Your task to perform on an android device: Go to Yahoo.com Image 0: 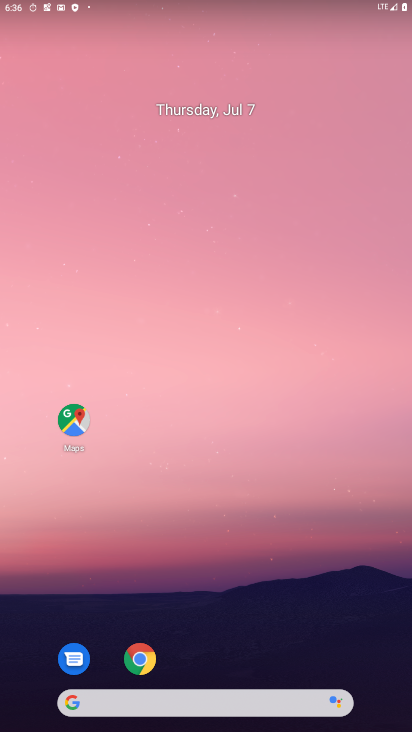
Step 0: drag from (374, 640) to (198, 11)
Your task to perform on an android device: Go to Yahoo.com Image 1: 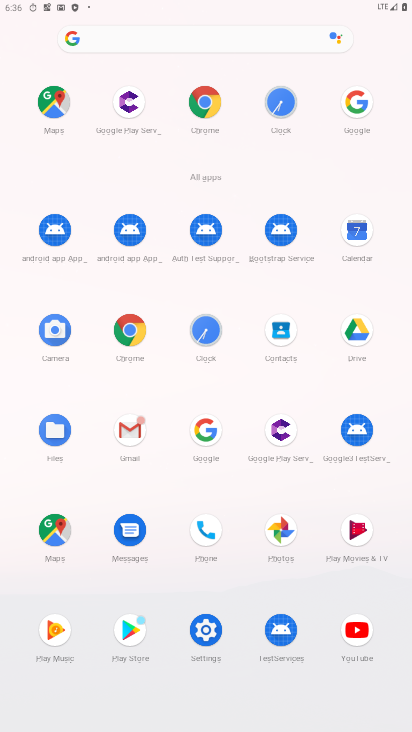
Step 1: click (347, 105)
Your task to perform on an android device: Go to Yahoo.com Image 2: 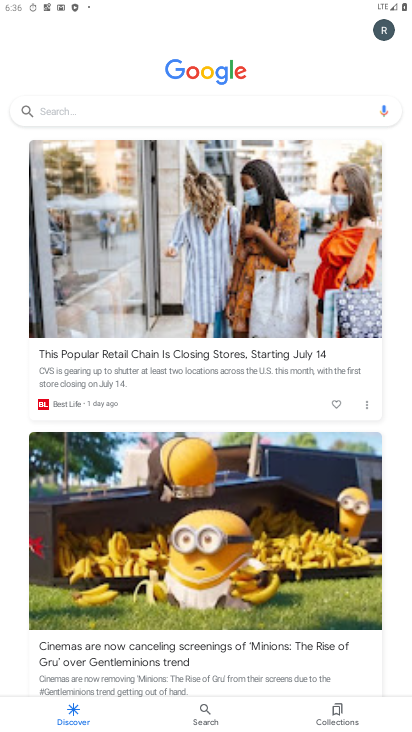
Step 2: click (62, 108)
Your task to perform on an android device: Go to Yahoo.com Image 3: 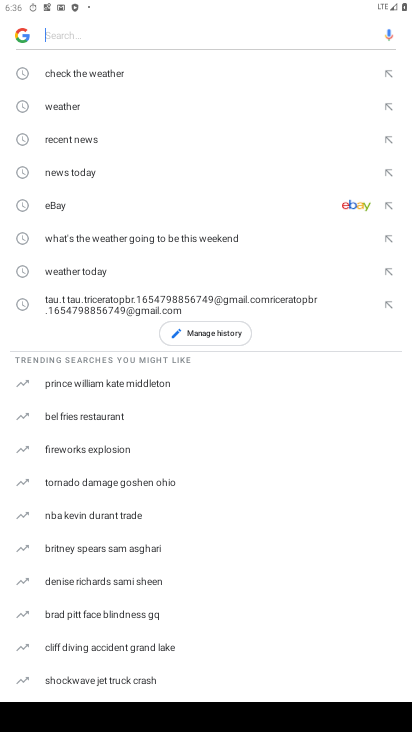
Step 3: type "Yahoo.com"
Your task to perform on an android device: Go to Yahoo.com Image 4: 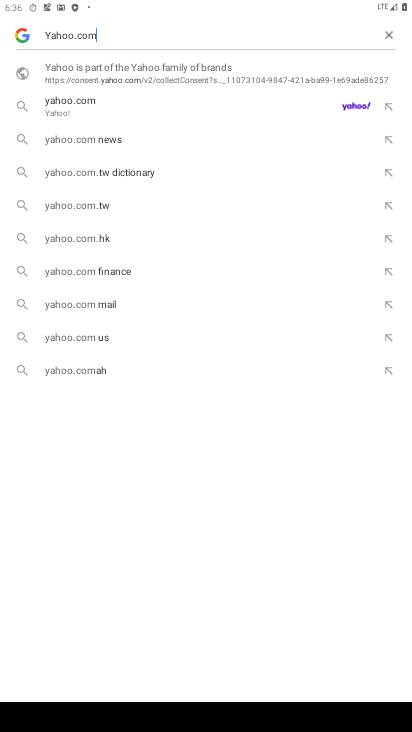
Step 4: click (126, 97)
Your task to perform on an android device: Go to Yahoo.com Image 5: 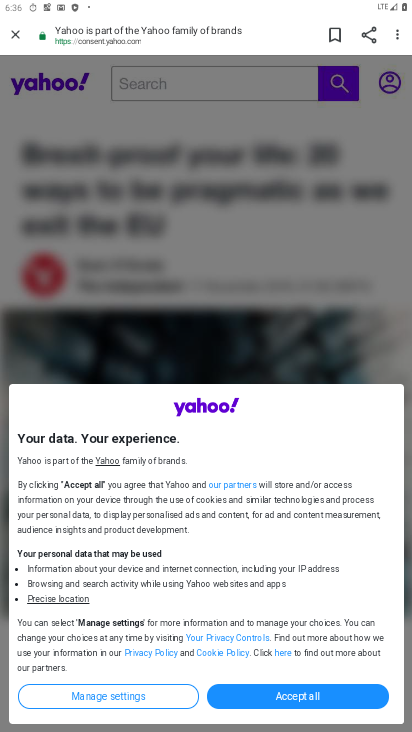
Step 5: task complete